Your task to perform on an android device: toggle airplane mode Image 0: 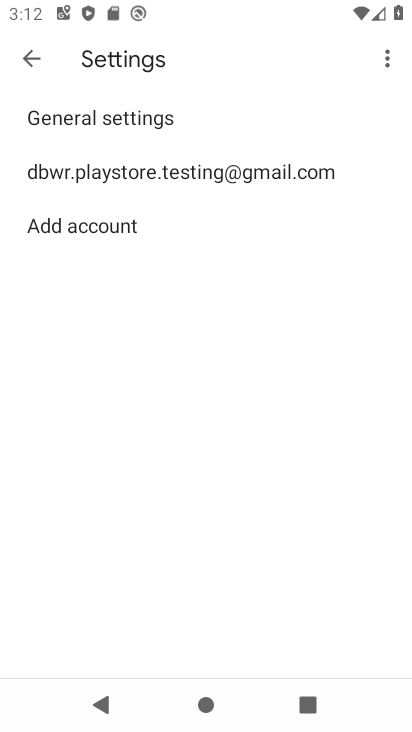
Step 0: press home button
Your task to perform on an android device: toggle airplane mode Image 1: 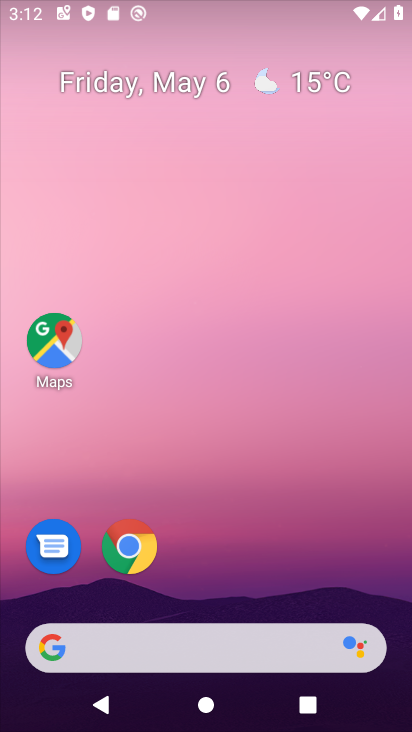
Step 1: press home button
Your task to perform on an android device: toggle airplane mode Image 2: 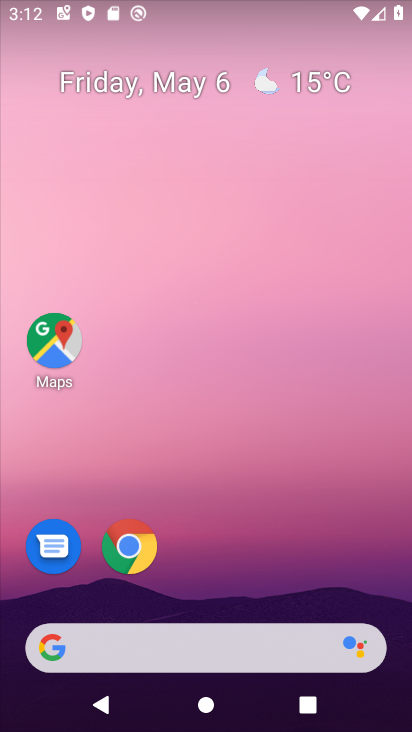
Step 2: drag from (354, 9) to (290, 527)
Your task to perform on an android device: toggle airplane mode Image 3: 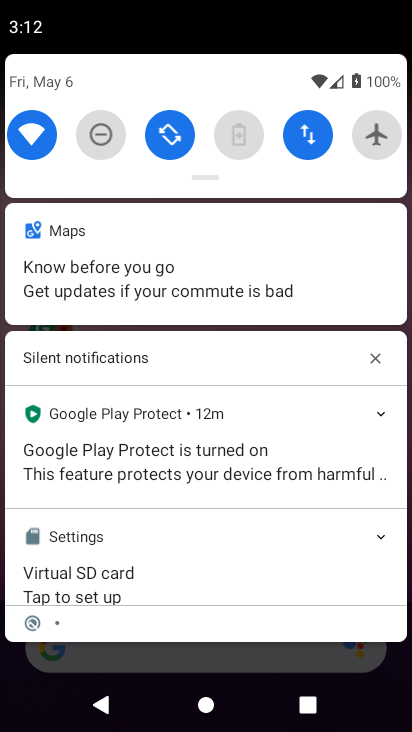
Step 3: click (378, 141)
Your task to perform on an android device: toggle airplane mode Image 4: 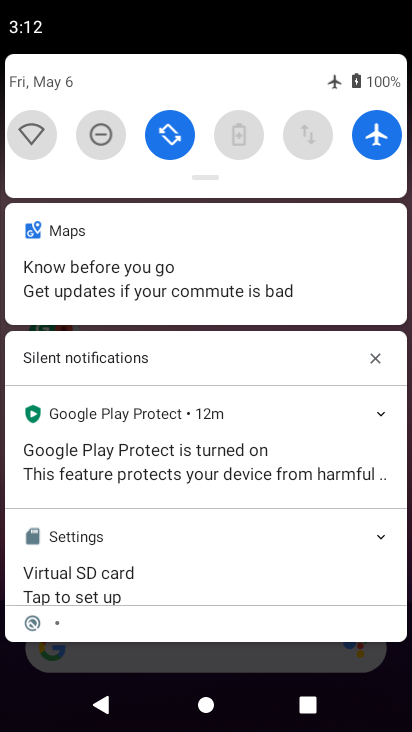
Step 4: task complete